Your task to perform on an android device: turn on improve location accuracy Image 0: 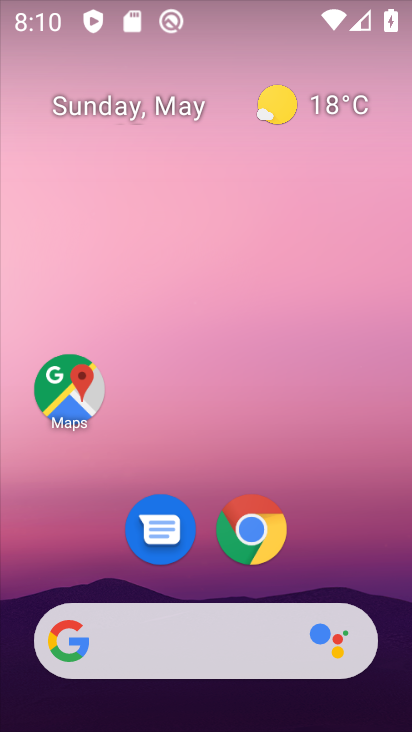
Step 0: drag from (363, 589) to (329, 16)
Your task to perform on an android device: turn on improve location accuracy Image 1: 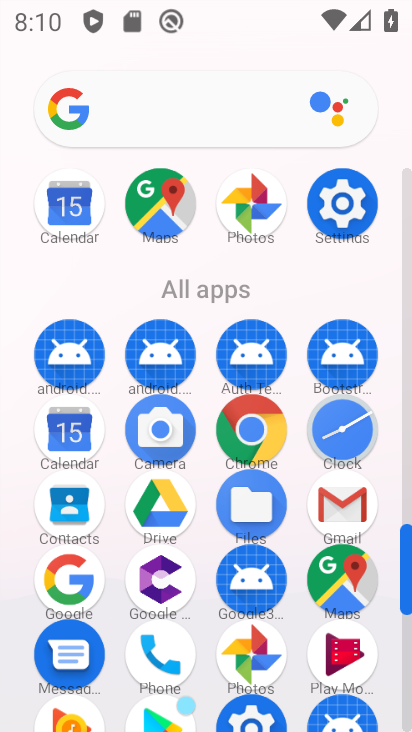
Step 1: click (343, 201)
Your task to perform on an android device: turn on improve location accuracy Image 2: 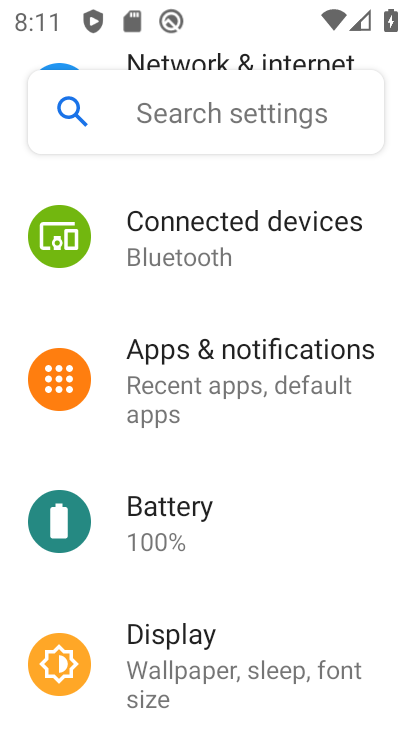
Step 2: drag from (293, 575) to (291, 152)
Your task to perform on an android device: turn on improve location accuracy Image 3: 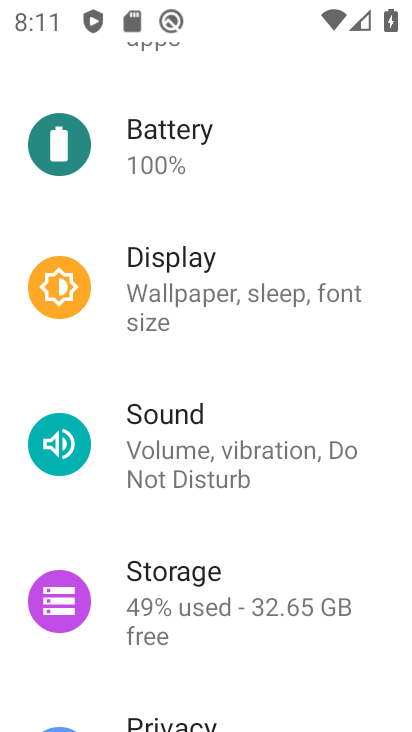
Step 3: drag from (278, 480) to (281, 172)
Your task to perform on an android device: turn on improve location accuracy Image 4: 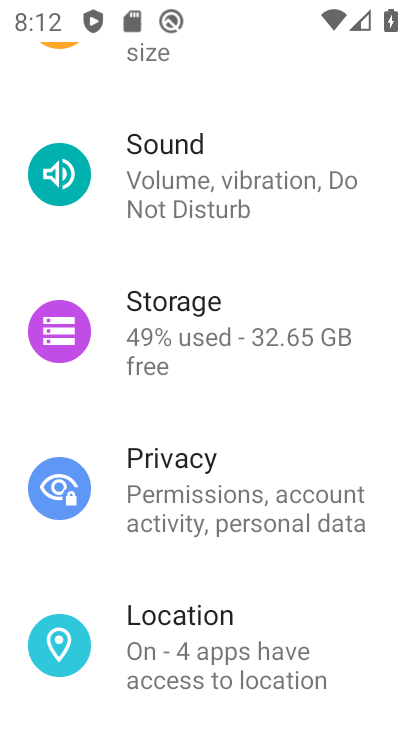
Step 4: click (178, 643)
Your task to perform on an android device: turn on improve location accuracy Image 5: 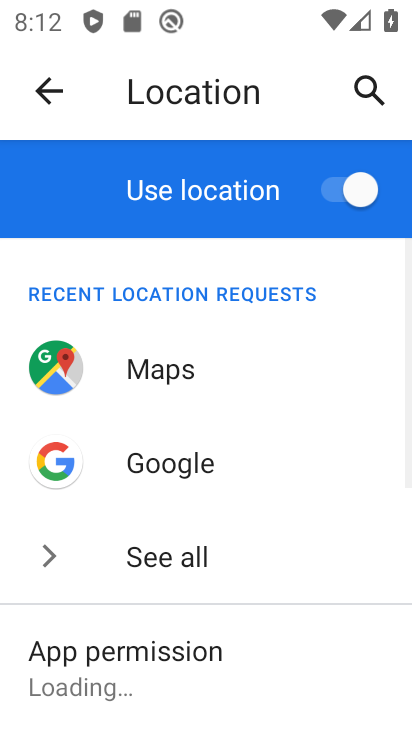
Step 5: drag from (213, 636) to (219, 159)
Your task to perform on an android device: turn on improve location accuracy Image 6: 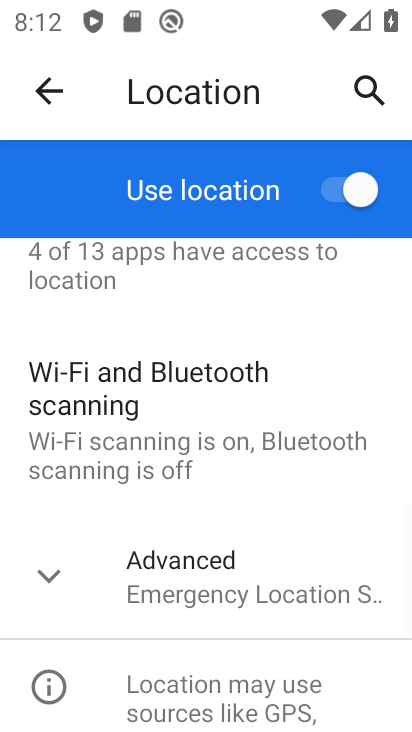
Step 6: click (51, 580)
Your task to perform on an android device: turn on improve location accuracy Image 7: 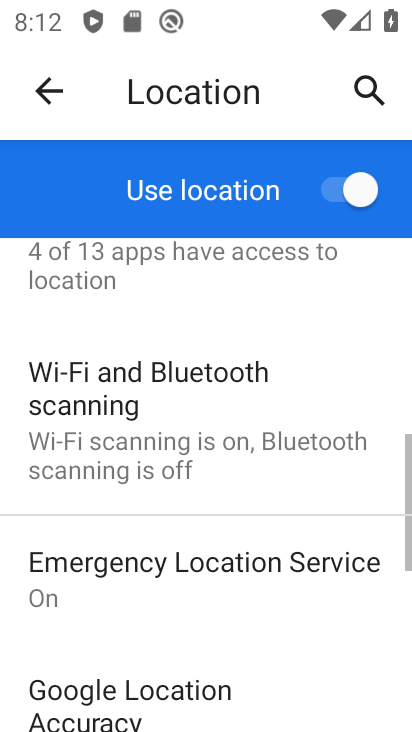
Step 7: drag from (159, 608) to (155, 268)
Your task to perform on an android device: turn on improve location accuracy Image 8: 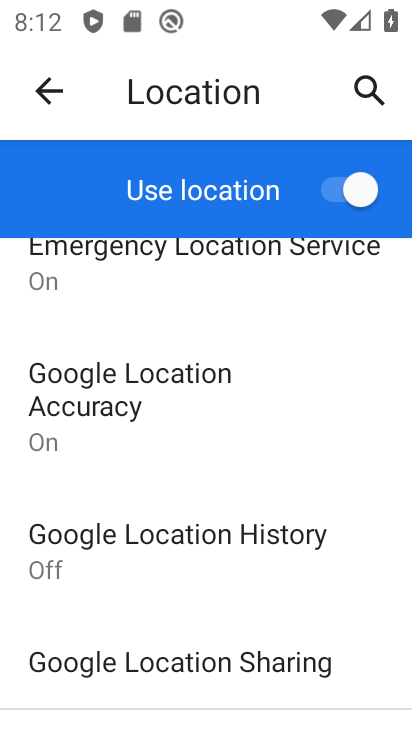
Step 8: click (99, 401)
Your task to perform on an android device: turn on improve location accuracy Image 9: 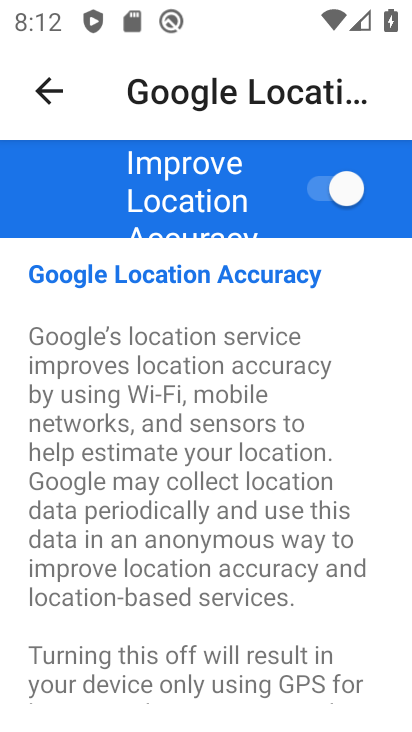
Step 9: task complete